Your task to perform on an android device: Open Google Image 0: 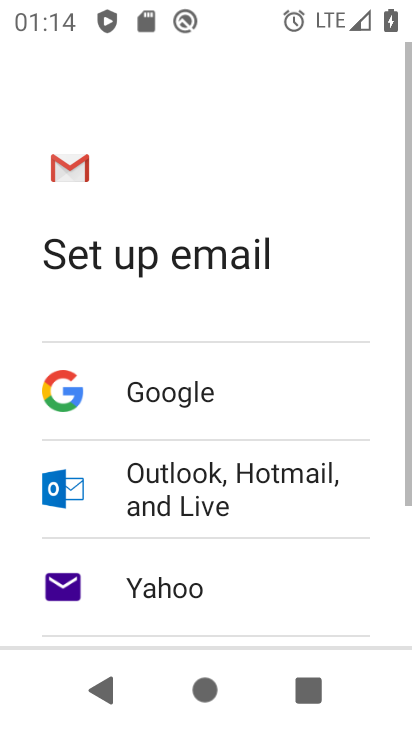
Step 0: press home button
Your task to perform on an android device: Open Google Image 1: 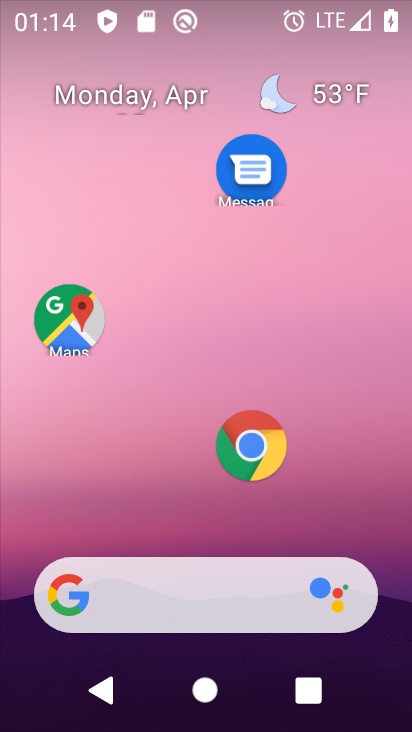
Step 1: drag from (161, 503) to (143, 556)
Your task to perform on an android device: Open Google Image 2: 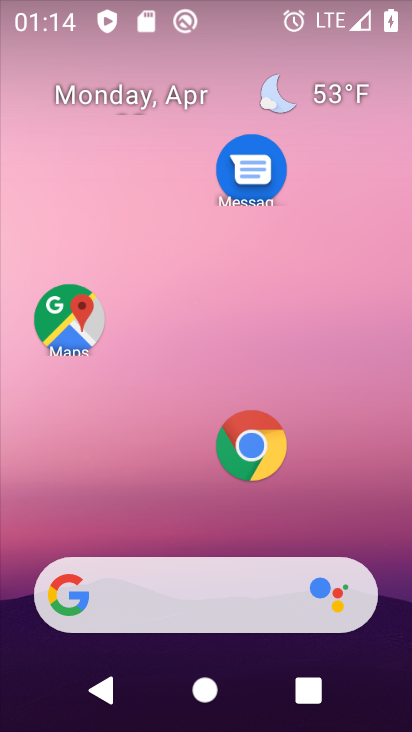
Step 2: click (124, 587)
Your task to perform on an android device: Open Google Image 3: 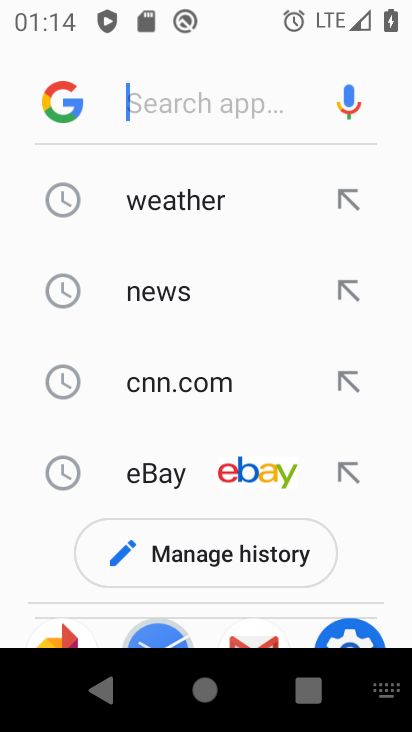
Step 3: click (61, 89)
Your task to perform on an android device: Open Google Image 4: 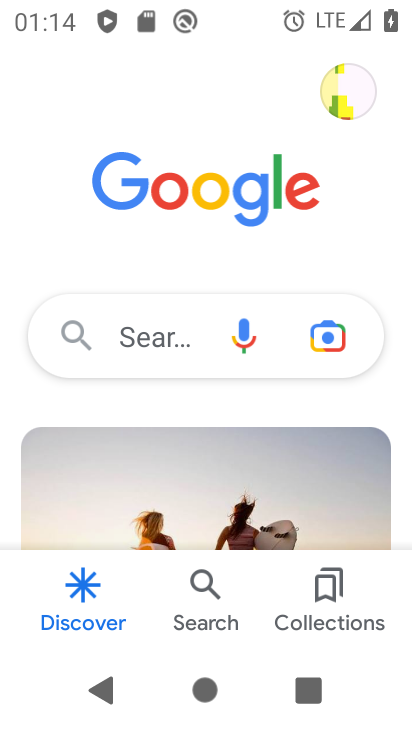
Step 4: task complete